Your task to perform on an android device: Do I have any events today? Image 0: 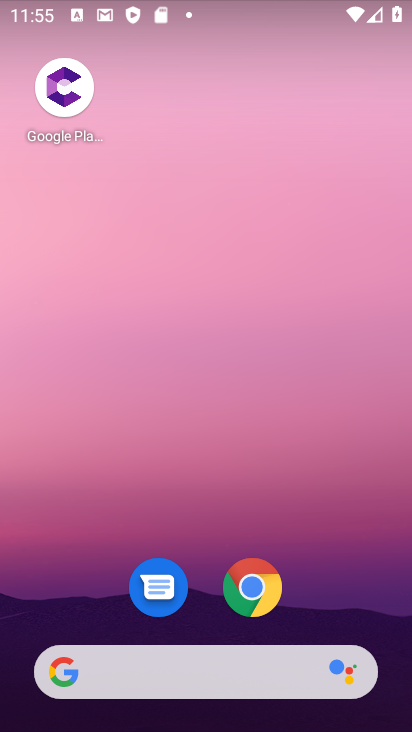
Step 0: drag from (230, 585) to (409, 162)
Your task to perform on an android device: Do I have any events today? Image 1: 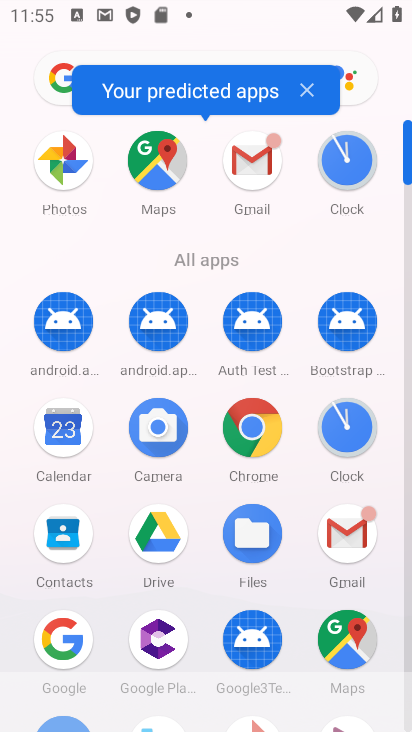
Step 1: click (64, 441)
Your task to perform on an android device: Do I have any events today? Image 2: 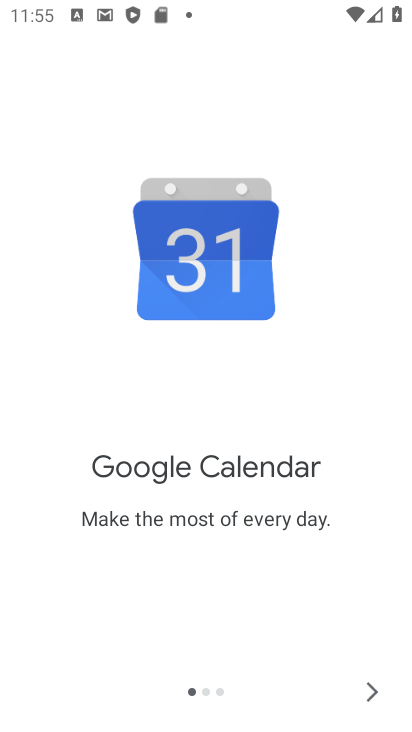
Step 2: click (386, 694)
Your task to perform on an android device: Do I have any events today? Image 3: 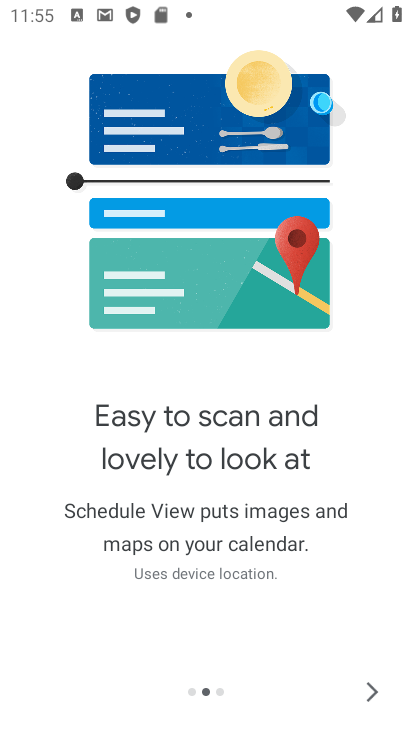
Step 3: click (386, 694)
Your task to perform on an android device: Do I have any events today? Image 4: 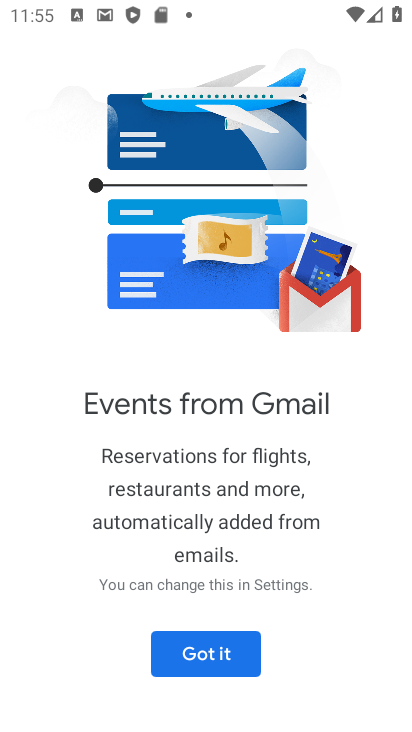
Step 4: click (249, 654)
Your task to perform on an android device: Do I have any events today? Image 5: 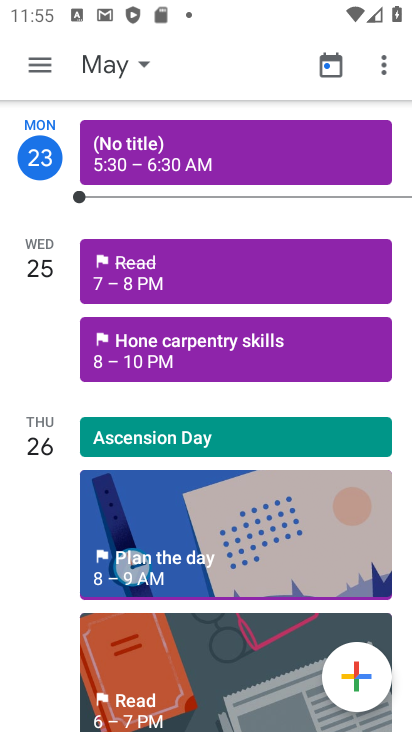
Step 5: task complete